Your task to perform on an android device: toggle notifications settings in the gmail app Image 0: 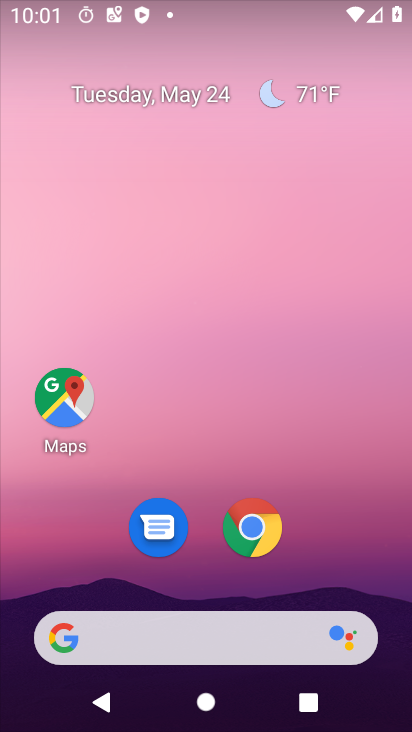
Step 0: drag from (213, 570) to (274, 65)
Your task to perform on an android device: toggle notifications settings in the gmail app Image 1: 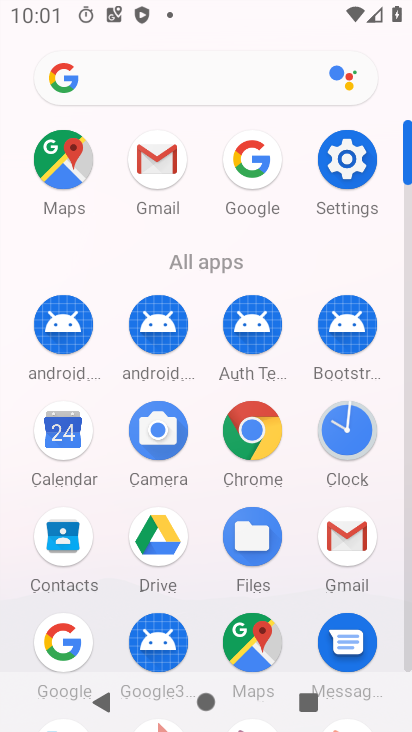
Step 1: click (150, 166)
Your task to perform on an android device: toggle notifications settings in the gmail app Image 2: 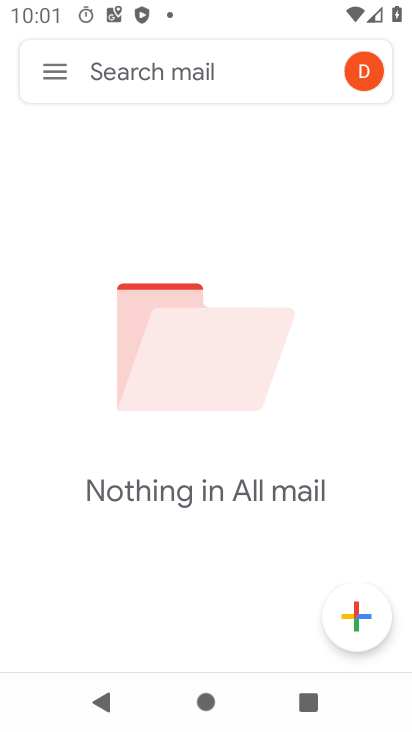
Step 2: click (47, 80)
Your task to perform on an android device: toggle notifications settings in the gmail app Image 3: 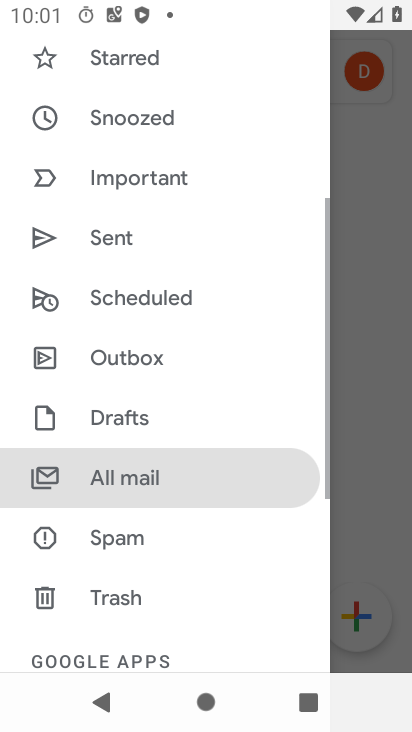
Step 3: drag from (131, 569) to (142, 112)
Your task to perform on an android device: toggle notifications settings in the gmail app Image 4: 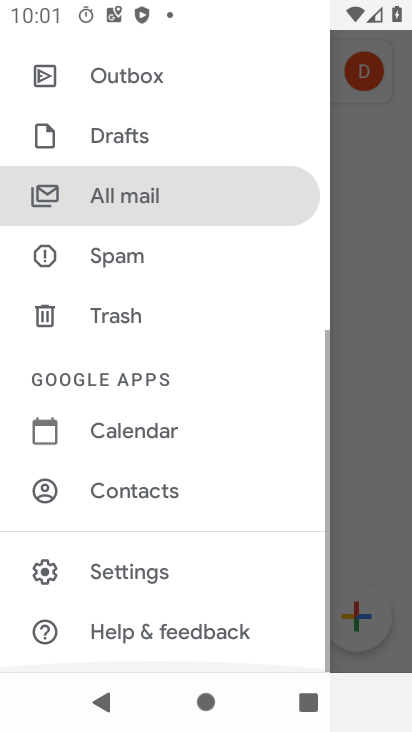
Step 4: click (84, 590)
Your task to perform on an android device: toggle notifications settings in the gmail app Image 5: 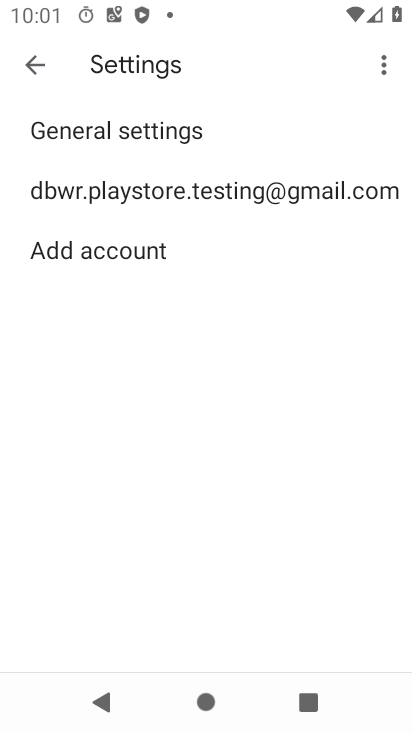
Step 5: click (150, 180)
Your task to perform on an android device: toggle notifications settings in the gmail app Image 6: 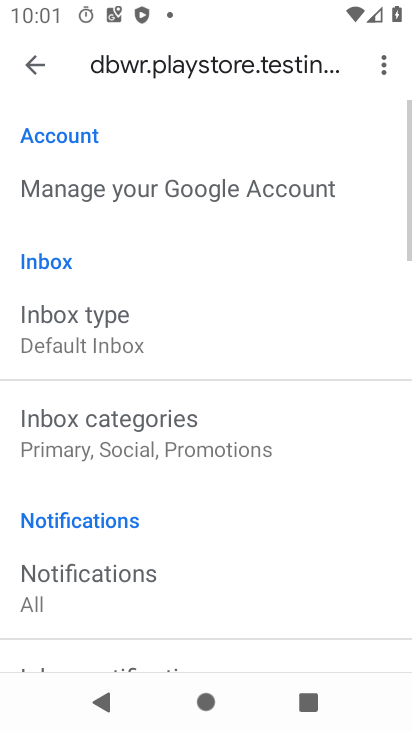
Step 6: click (113, 592)
Your task to perform on an android device: toggle notifications settings in the gmail app Image 7: 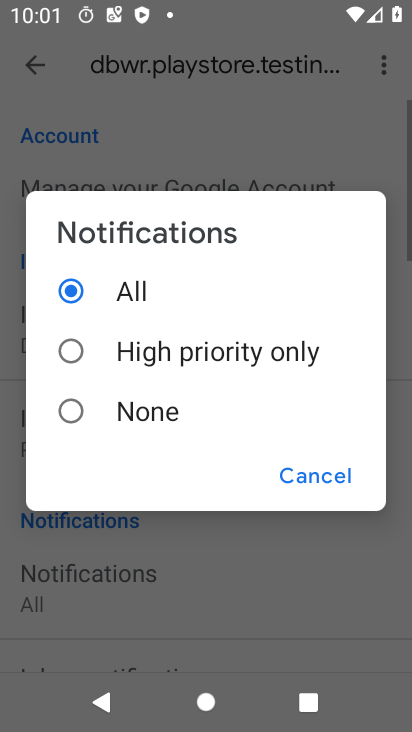
Step 7: click (100, 408)
Your task to perform on an android device: toggle notifications settings in the gmail app Image 8: 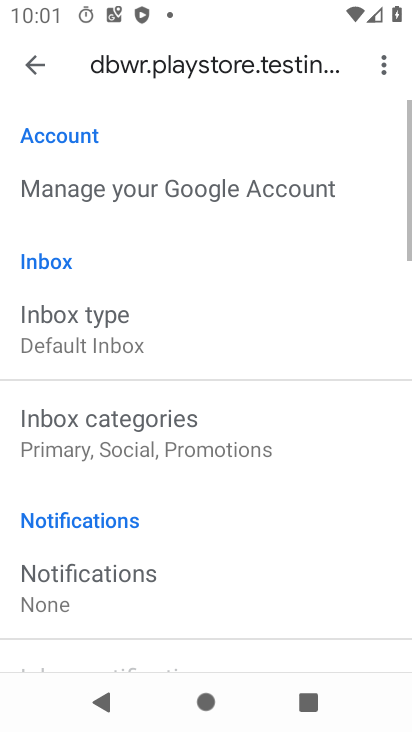
Step 8: task complete